Your task to perform on an android device: What's the latest news in planetary science? Image 0: 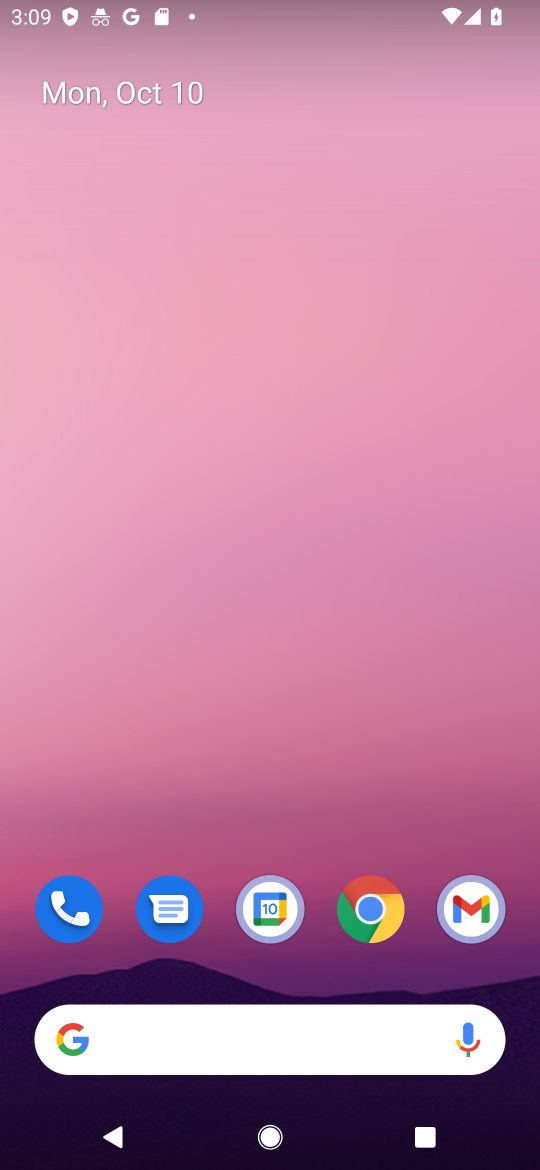
Step 0: click (368, 914)
Your task to perform on an android device: What's the latest news in planetary science? Image 1: 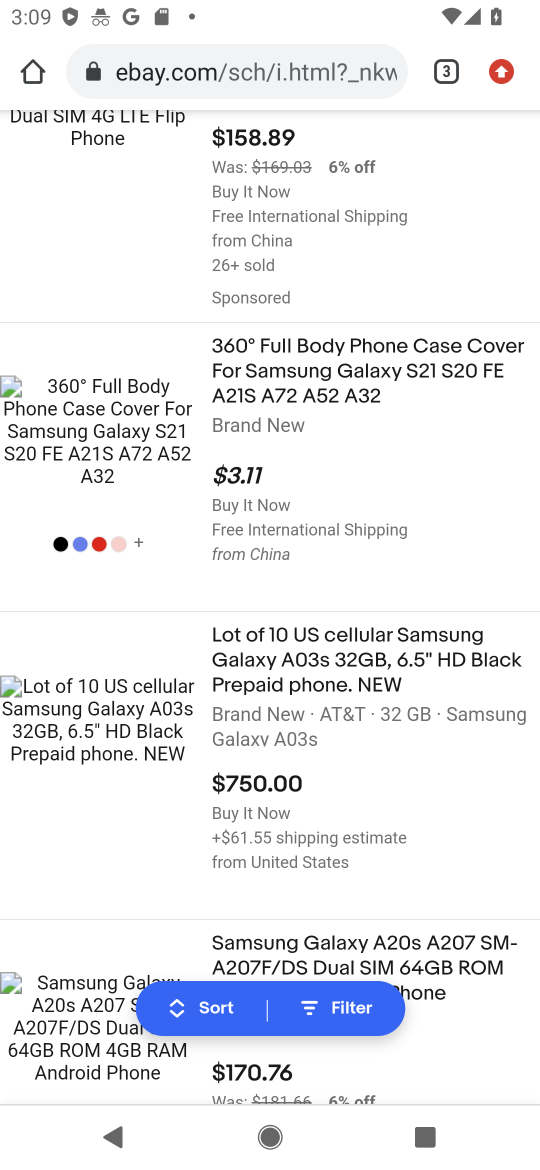
Step 1: click (246, 45)
Your task to perform on an android device: What's the latest news in planetary science? Image 2: 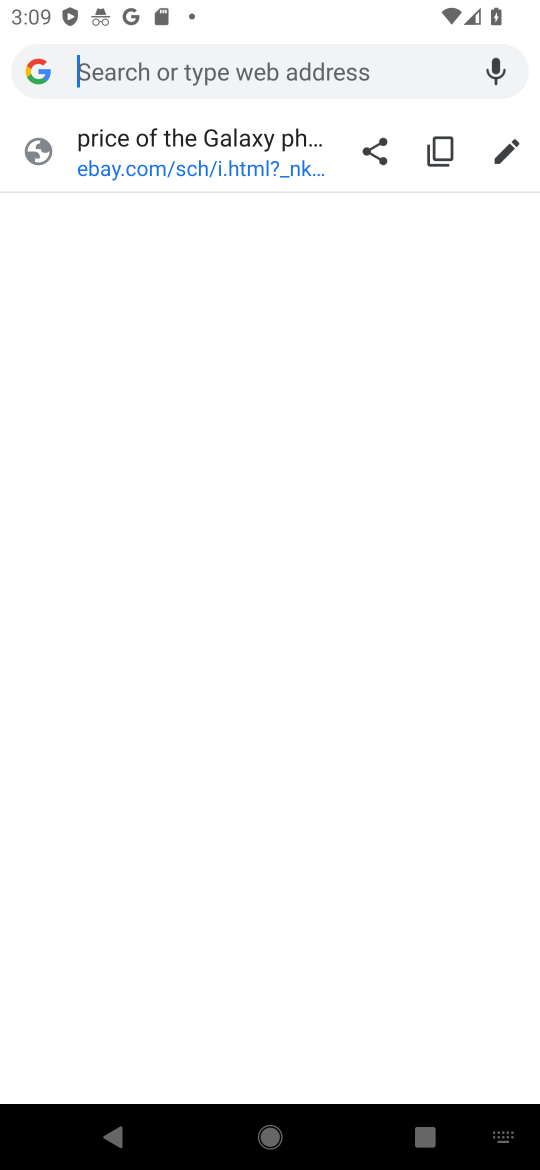
Step 2: type "latest news in planetary science?"
Your task to perform on an android device: What's the latest news in planetary science? Image 3: 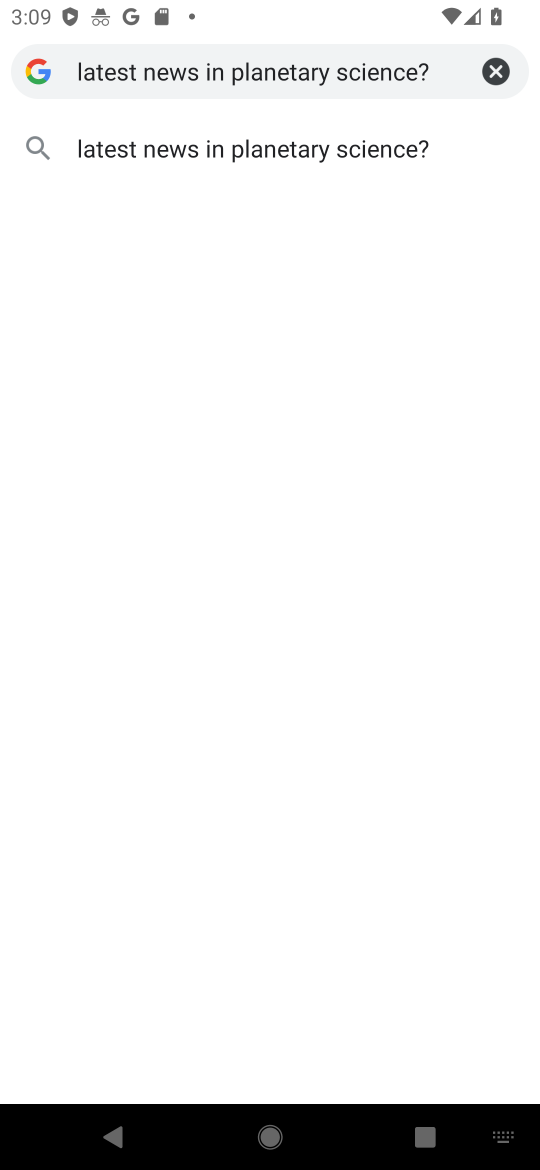
Step 3: click (182, 137)
Your task to perform on an android device: What's the latest news in planetary science? Image 4: 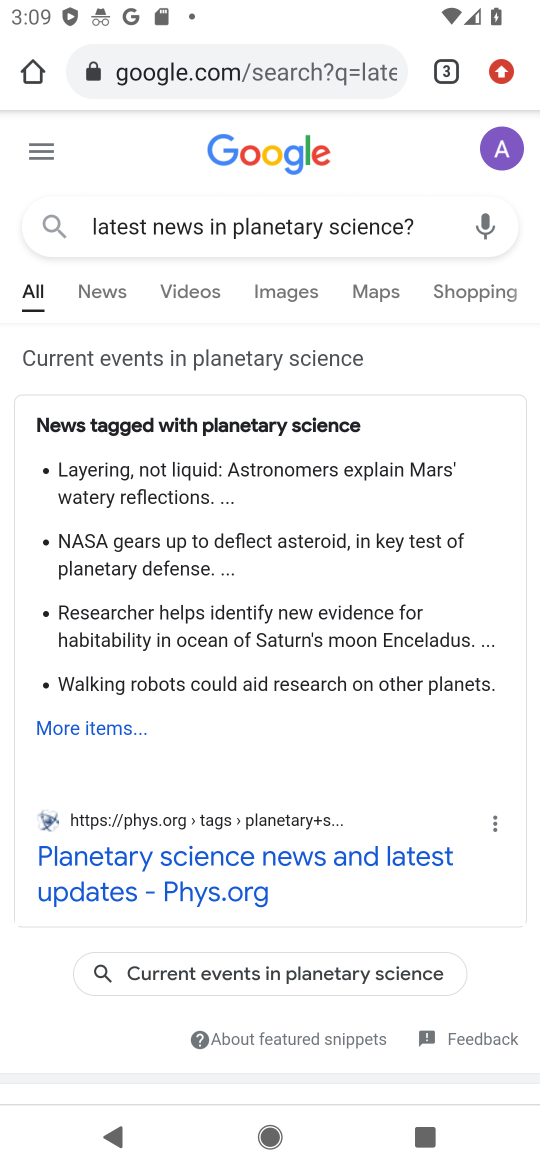
Step 4: click (95, 860)
Your task to perform on an android device: What's the latest news in planetary science? Image 5: 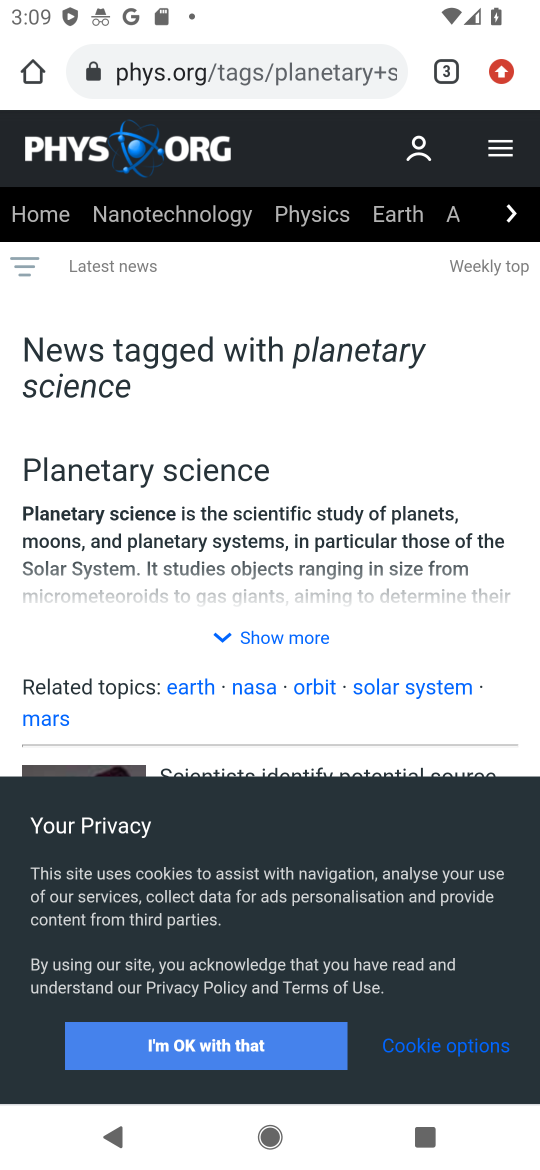
Step 5: click (185, 1050)
Your task to perform on an android device: What's the latest news in planetary science? Image 6: 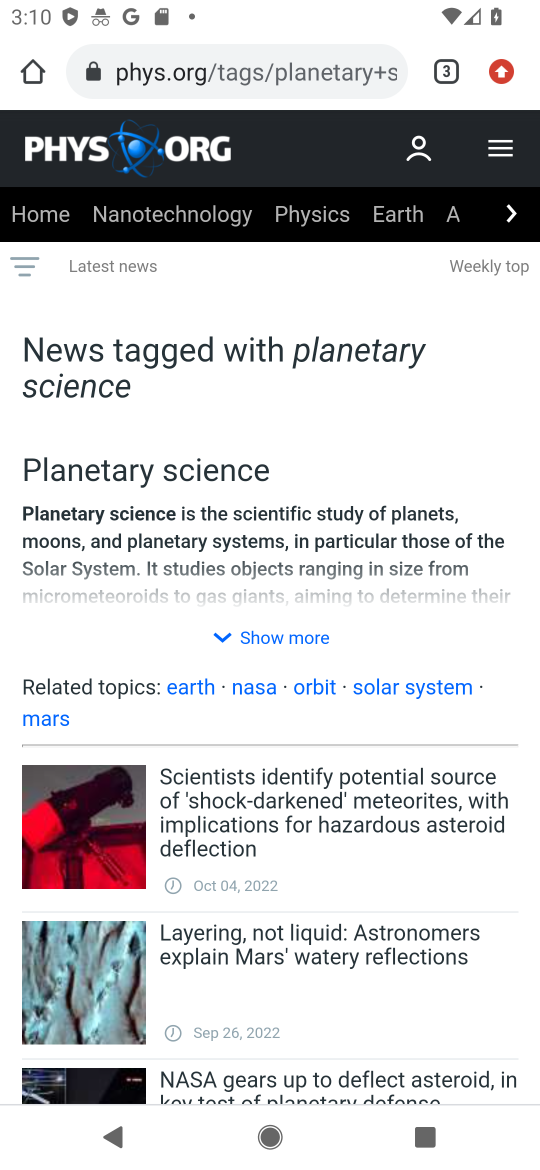
Step 6: drag from (317, 895) to (325, 656)
Your task to perform on an android device: What's the latest news in planetary science? Image 7: 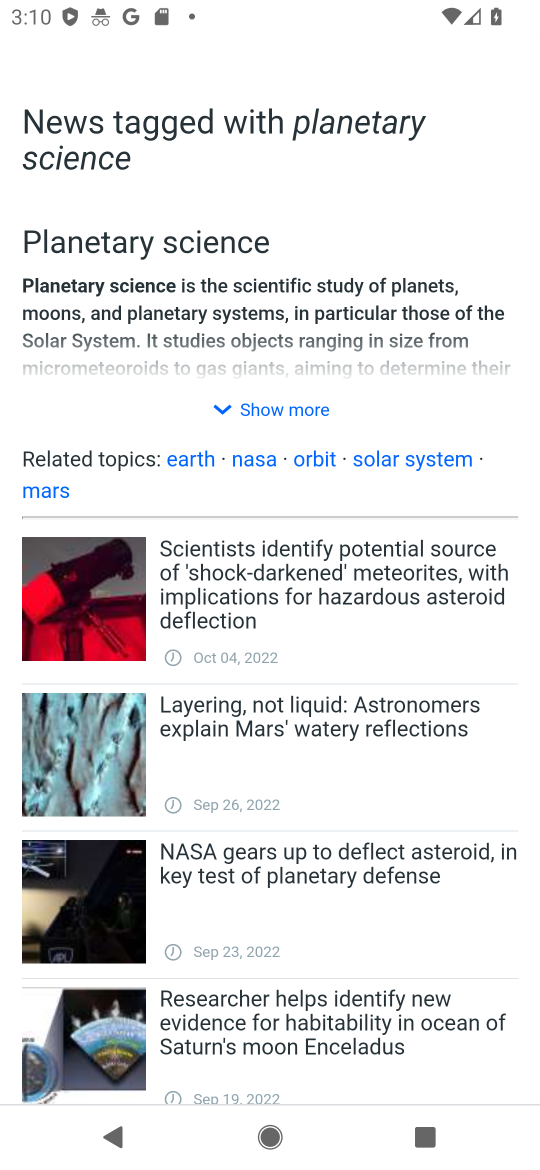
Step 7: click (219, 402)
Your task to perform on an android device: What's the latest news in planetary science? Image 8: 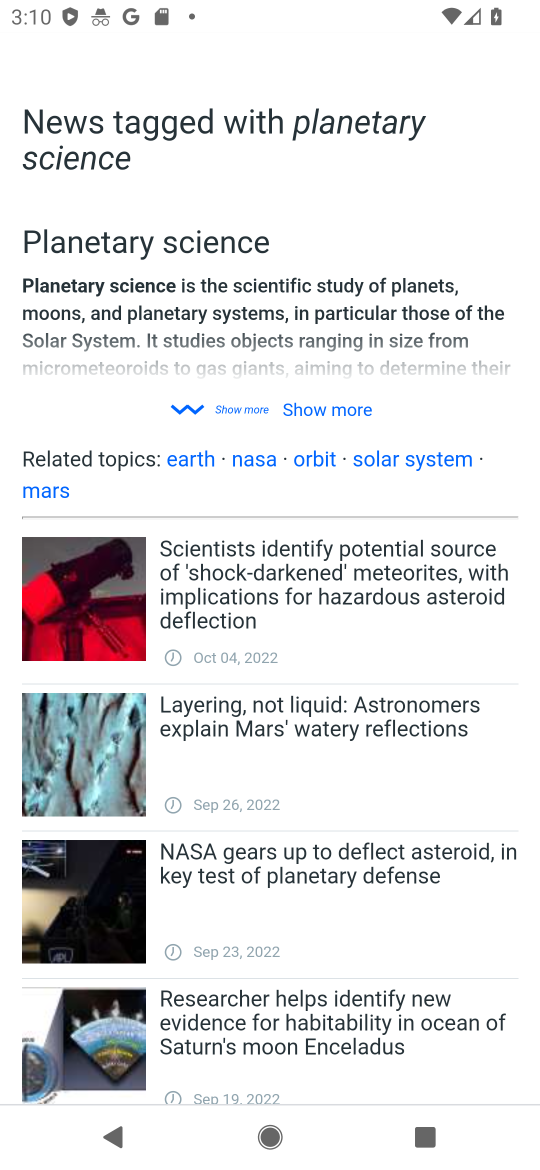
Step 8: click (335, 404)
Your task to perform on an android device: What's the latest news in planetary science? Image 9: 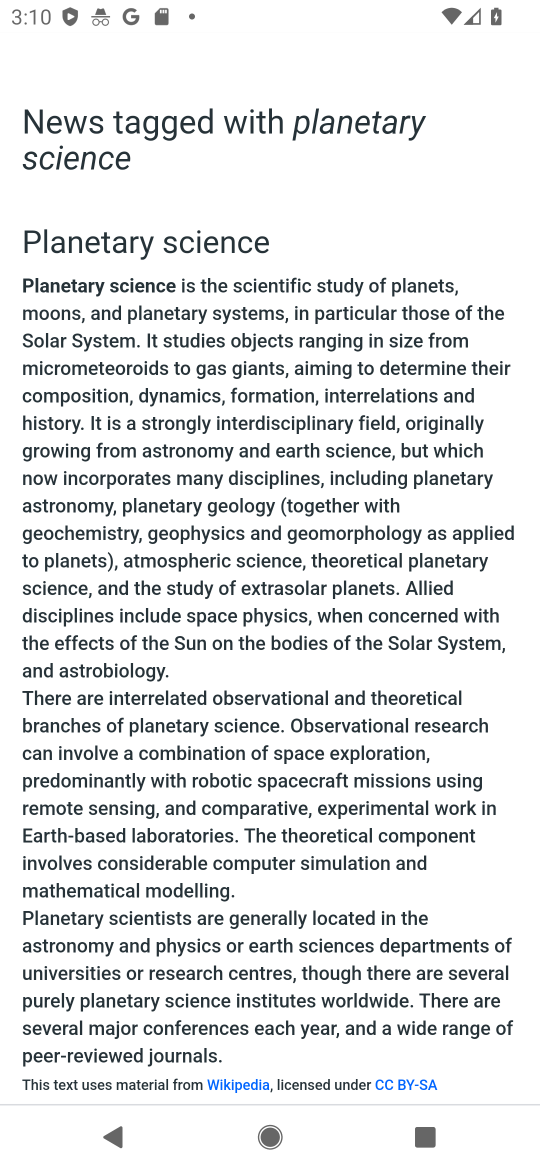
Step 9: task complete